Your task to perform on an android device: Open Wikipedia Image 0: 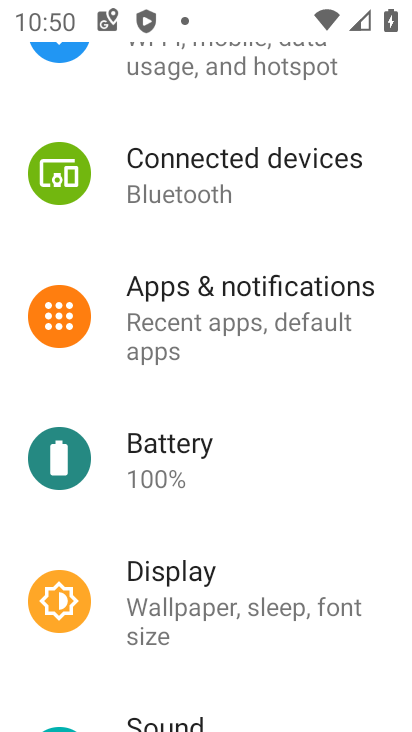
Step 0: press home button
Your task to perform on an android device: Open Wikipedia Image 1: 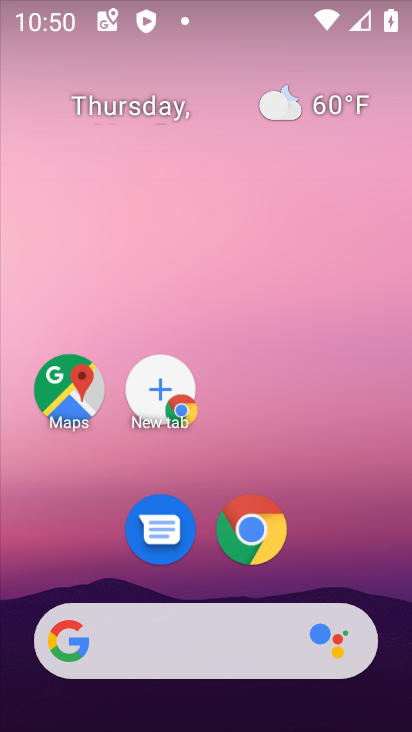
Step 1: drag from (360, 583) to (259, 178)
Your task to perform on an android device: Open Wikipedia Image 2: 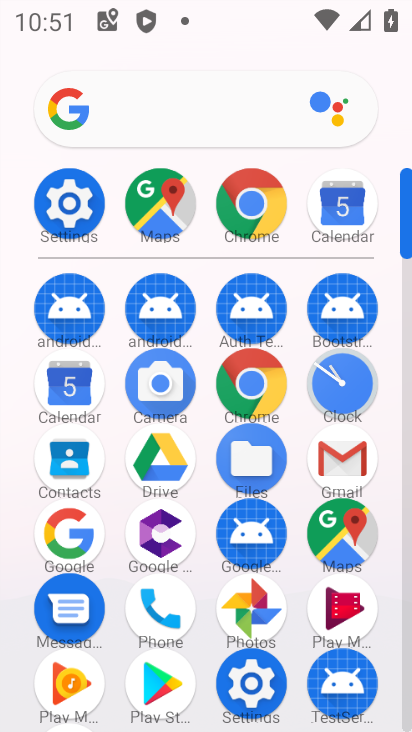
Step 2: click (256, 216)
Your task to perform on an android device: Open Wikipedia Image 3: 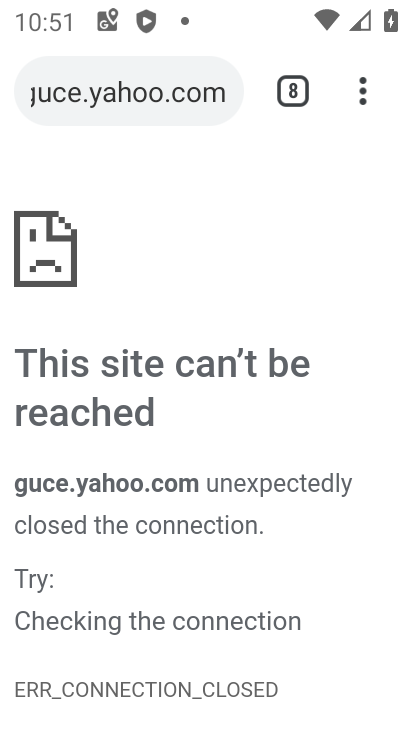
Step 3: click (361, 87)
Your task to perform on an android device: Open Wikipedia Image 4: 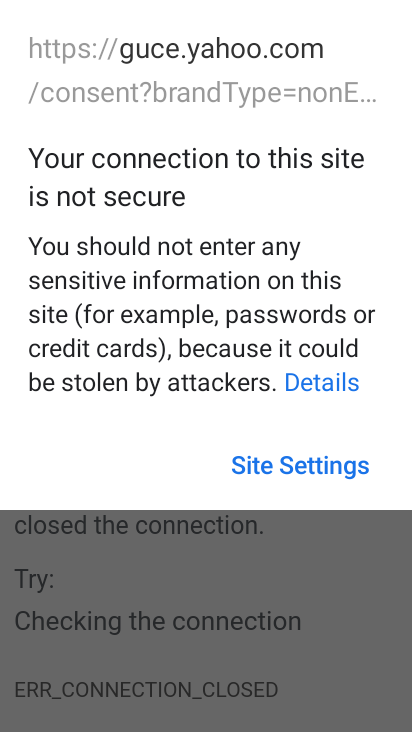
Step 4: click (301, 465)
Your task to perform on an android device: Open Wikipedia Image 5: 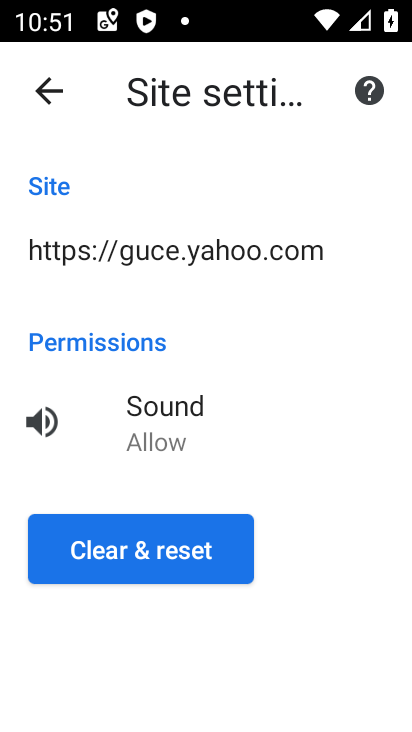
Step 5: click (45, 96)
Your task to perform on an android device: Open Wikipedia Image 6: 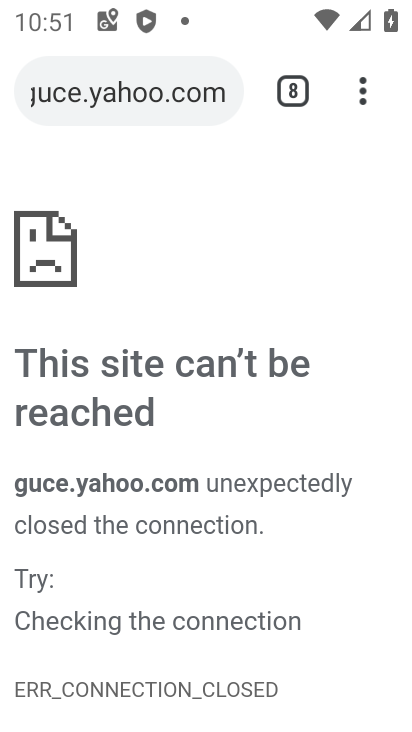
Step 6: drag from (363, 94) to (74, 181)
Your task to perform on an android device: Open Wikipedia Image 7: 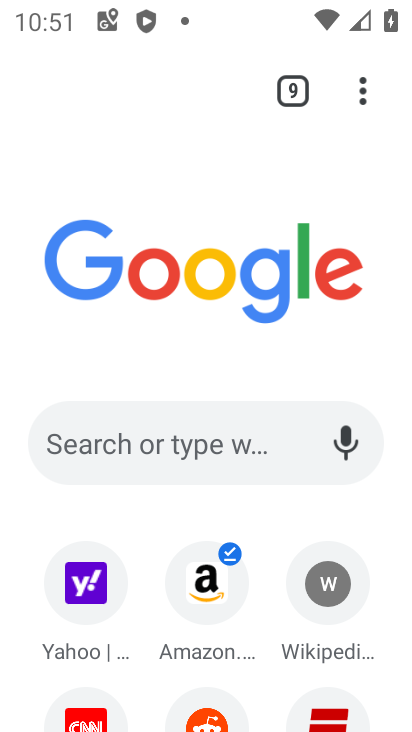
Step 7: click (317, 590)
Your task to perform on an android device: Open Wikipedia Image 8: 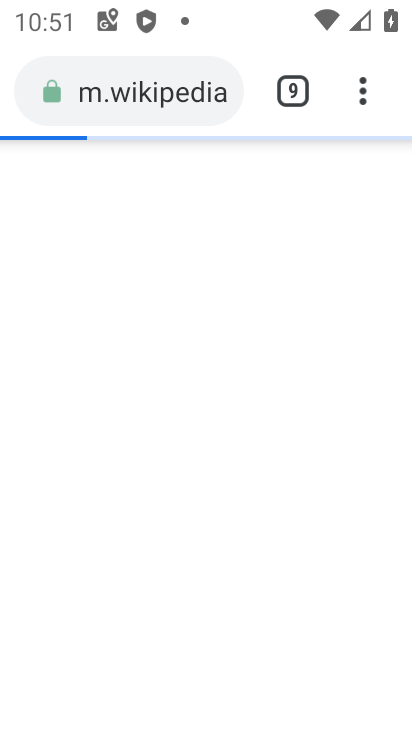
Step 8: click (319, 584)
Your task to perform on an android device: Open Wikipedia Image 9: 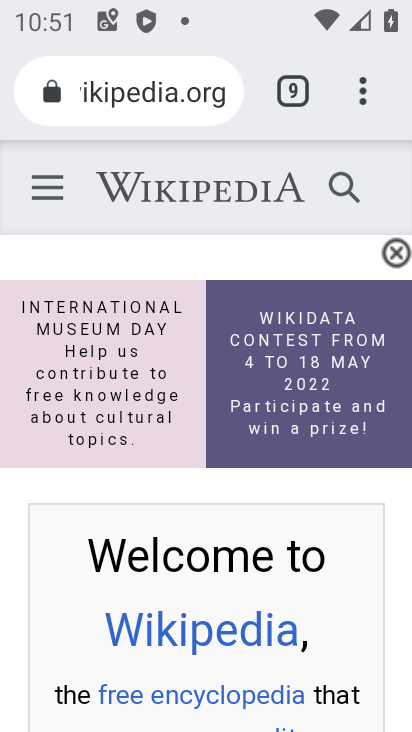
Step 9: task complete